Your task to perform on an android device: set the stopwatch Image 0: 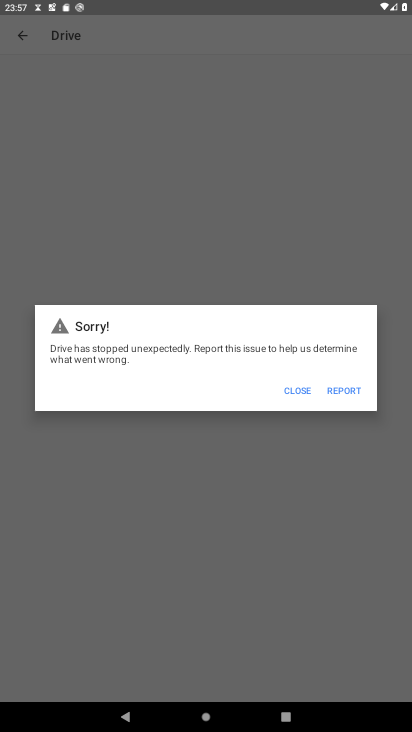
Step 0: press home button
Your task to perform on an android device: set the stopwatch Image 1: 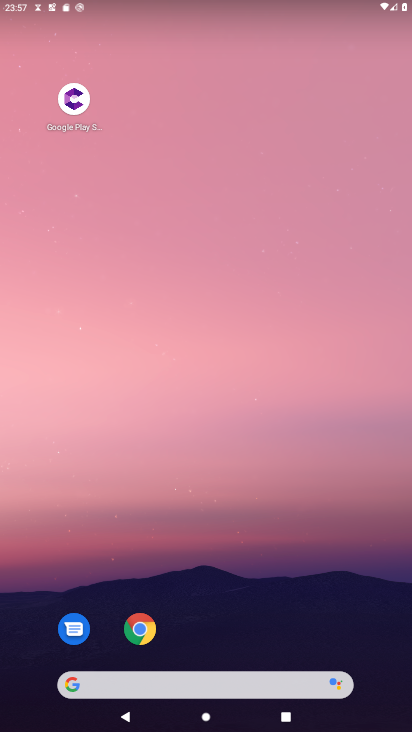
Step 1: click (225, 275)
Your task to perform on an android device: set the stopwatch Image 2: 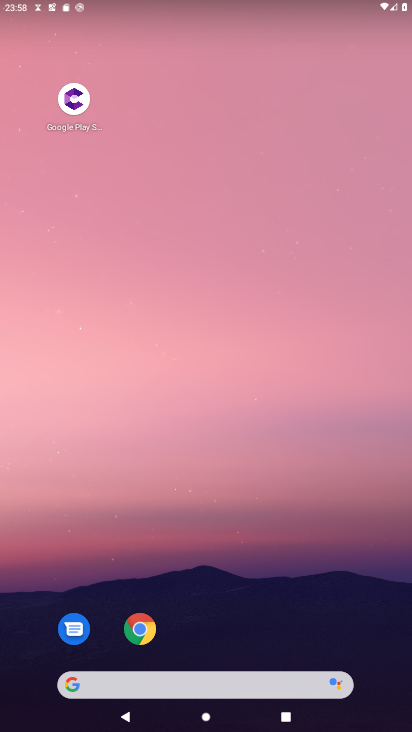
Step 2: drag from (226, 668) to (216, 216)
Your task to perform on an android device: set the stopwatch Image 3: 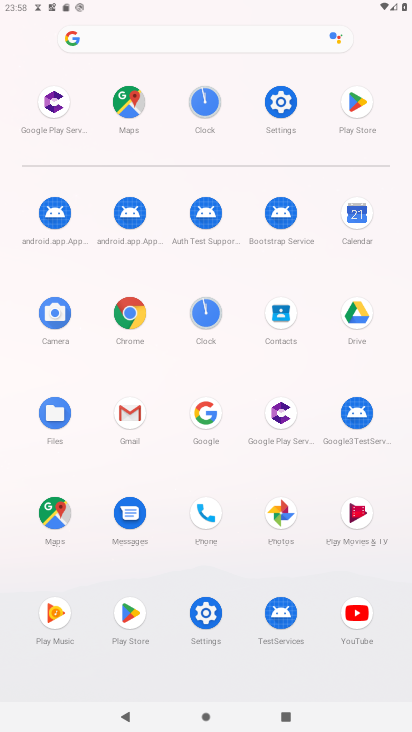
Step 3: click (208, 318)
Your task to perform on an android device: set the stopwatch Image 4: 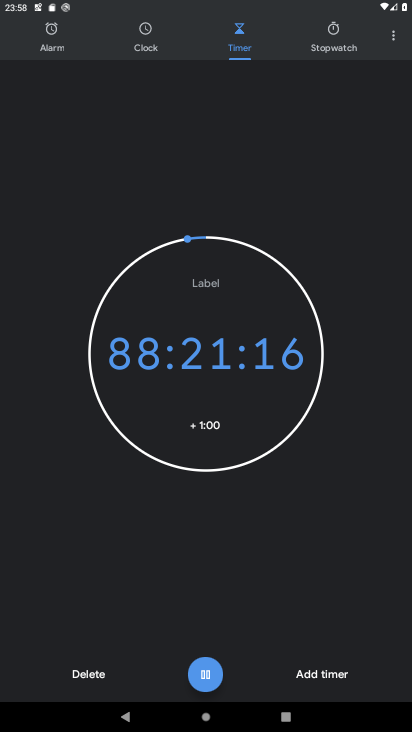
Step 4: click (337, 38)
Your task to perform on an android device: set the stopwatch Image 5: 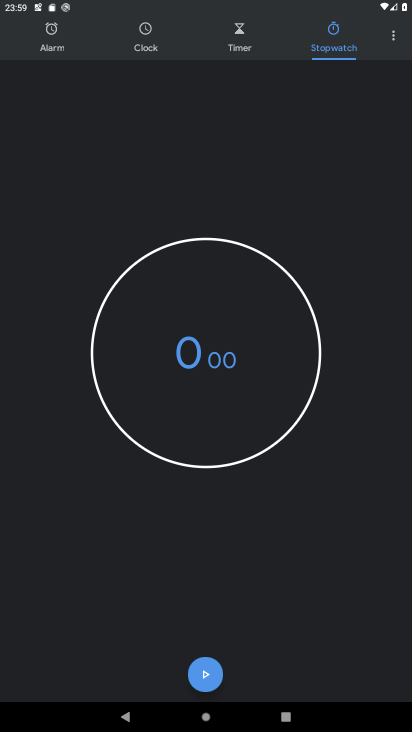
Step 5: task complete